Your task to perform on an android device: change text size in settings app Image 0: 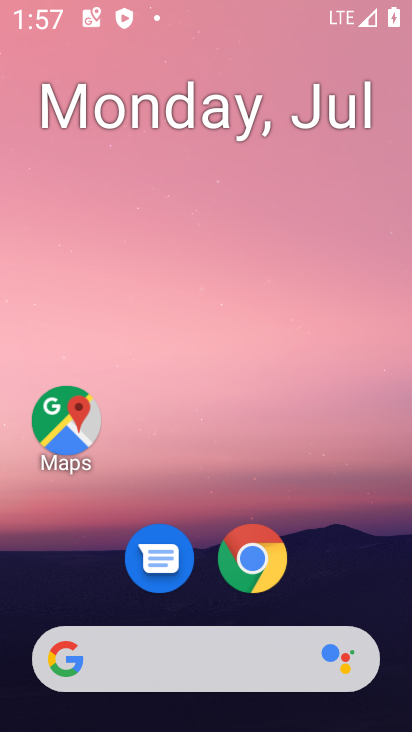
Step 0: press home button
Your task to perform on an android device: change text size in settings app Image 1: 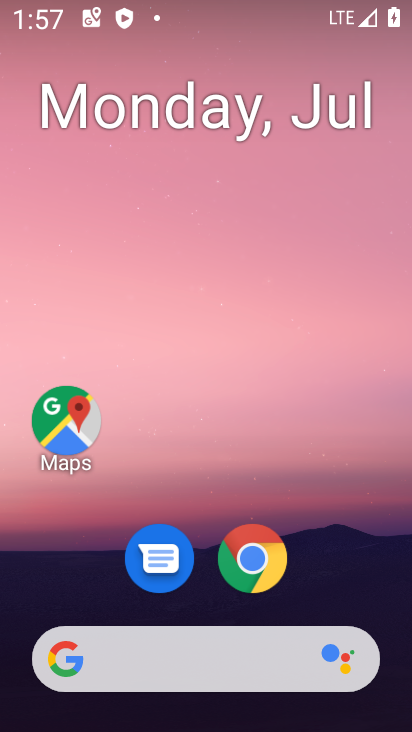
Step 1: drag from (362, 571) to (358, 129)
Your task to perform on an android device: change text size in settings app Image 2: 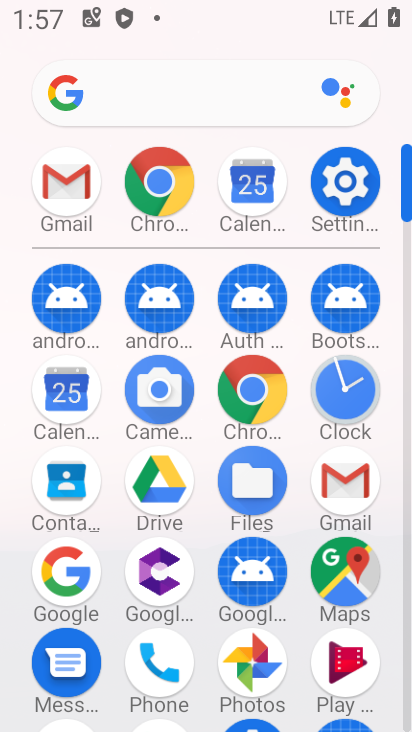
Step 2: click (343, 203)
Your task to perform on an android device: change text size in settings app Image 3: 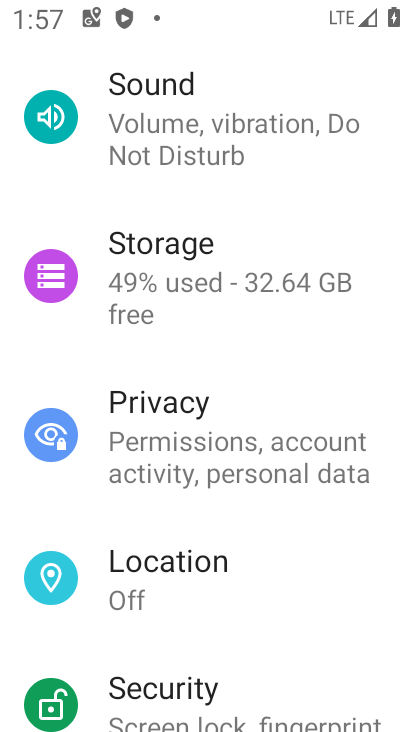
Step 3: drag from (339, 196) to (343, 272)
Your task to perform on an android device: change text size in settings app Image 4: 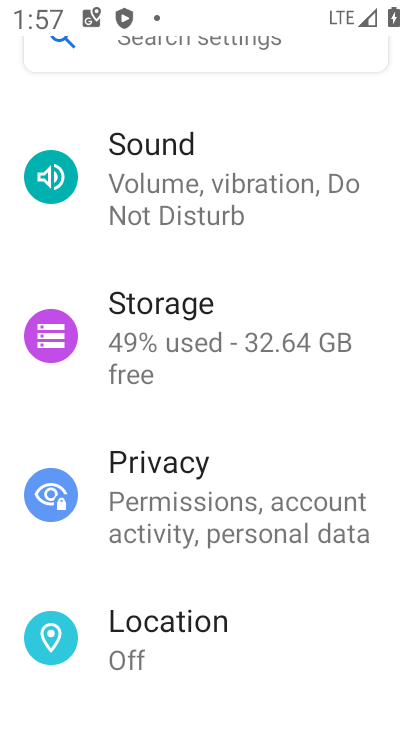
Step 4: drag from (370, 214) to (370, 324)
Your task to perform on an android device: change text size in settings app Image 5: 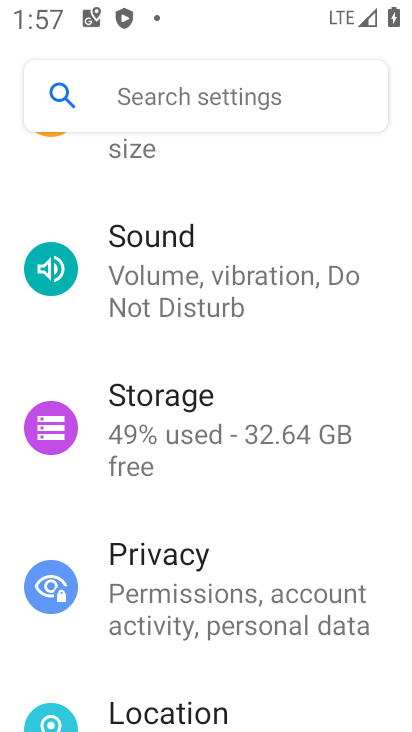
Step 5: drag from (370, 234) to (360, 353)
Your task to perform on an android device: change text size in settings app Image 6: 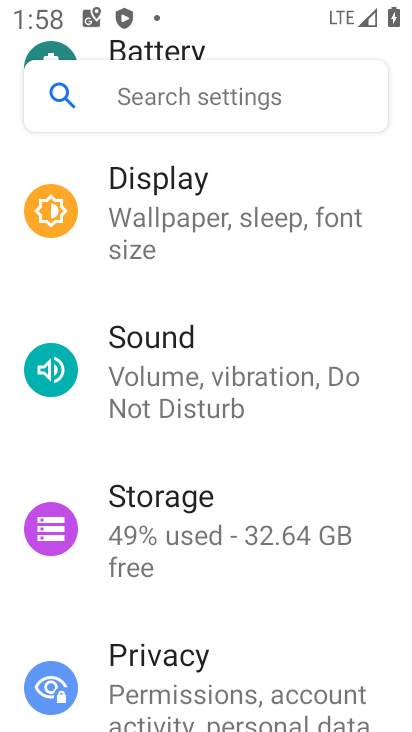
Step 6: drag from (378, 264) to (377, 376)
Your task to perform on an android device: change text size in settings app Image 7: 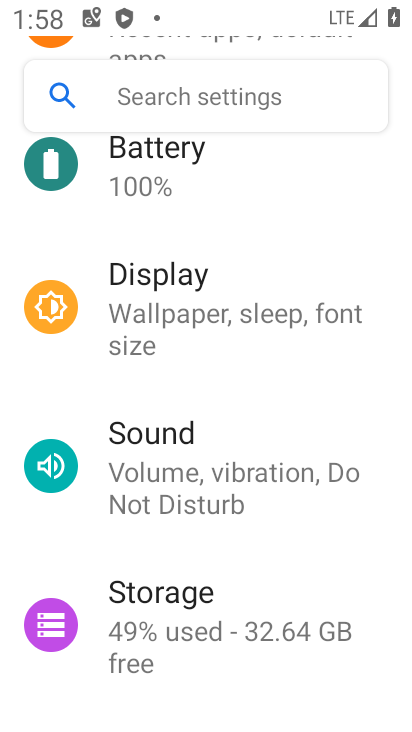
Step 7: drag from (379, 249) to (369, 365)
Your task to perform on an android device: change text size in settings app Image 8: 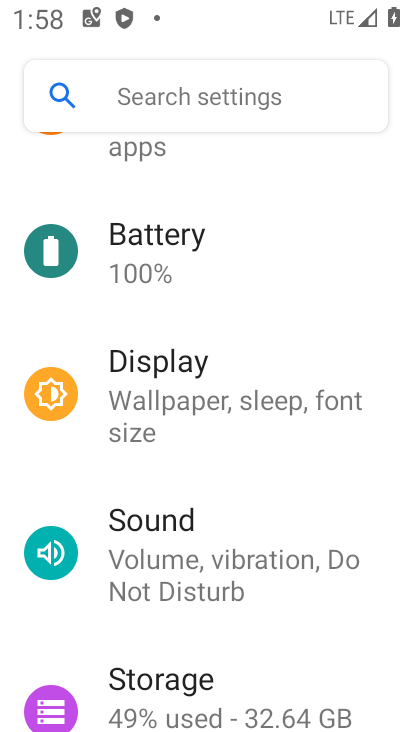
Step 8: drag from (356, 230) to (358, 340)
Your task to perform on an android device: change text size in settings app Image 9: 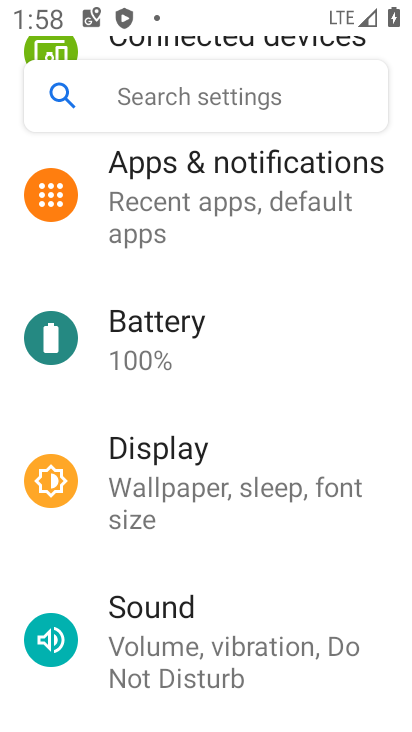
Step 9: drag from (358, 271) to (354, 384)
Your task to perform on an android device: change text size in settings app Image 10: 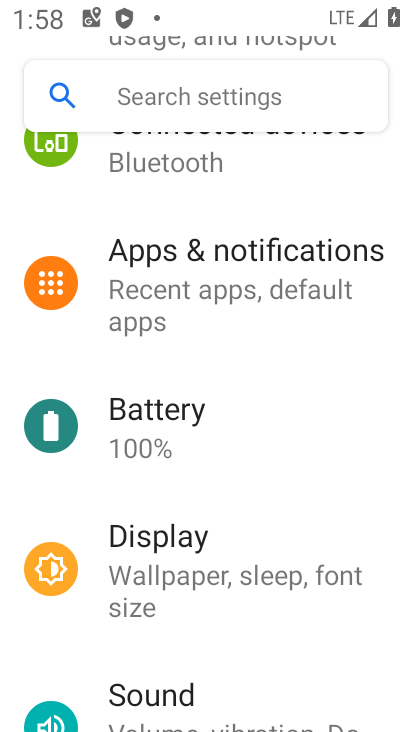
Step 10: click (317, 546)
Your task to perform on an android device: change text size in settings app Image 11: 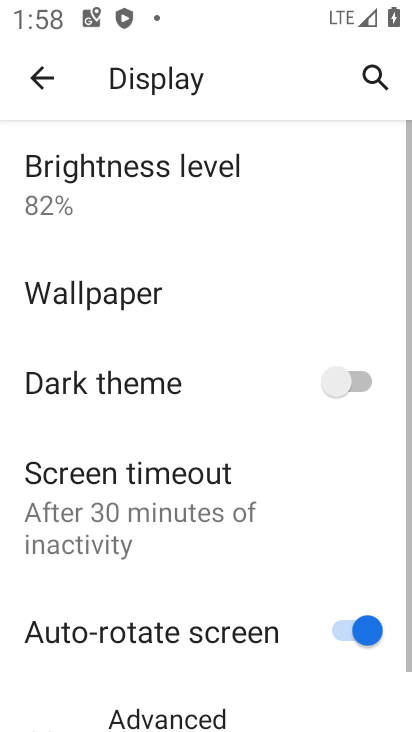
Step 11: drag from (295, 554) to (291, 403)
Your task to perform on an android device: change text size in settings app Image 12: 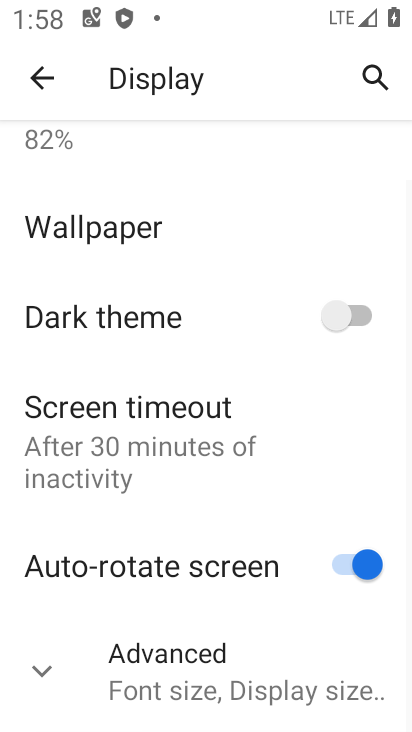
Step 12: click (272, 641)
Your task to perform on an android device: change text size in settings app Image 13: 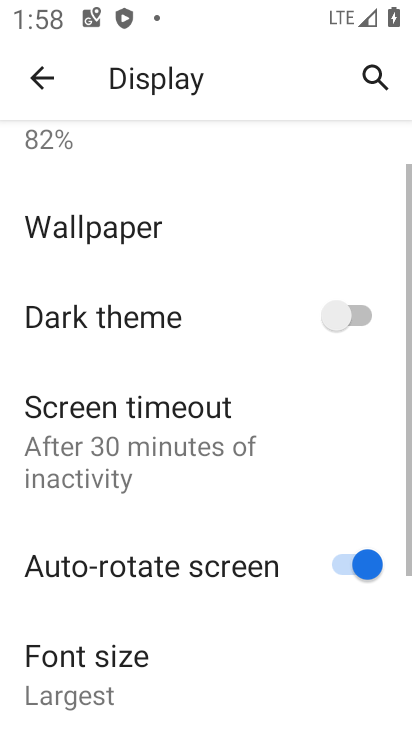
Step 13: drag from (280, 616) to (285, 481)
Your task to perform on an android device: change text size in settings app Image 14: 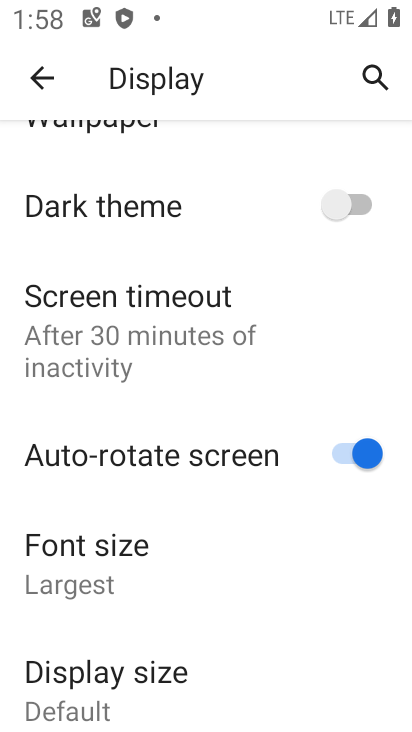
Step 14: drag from (246, 621) to (247, 440)
Your task to perform on an android device: change text size in settings app Image 15: 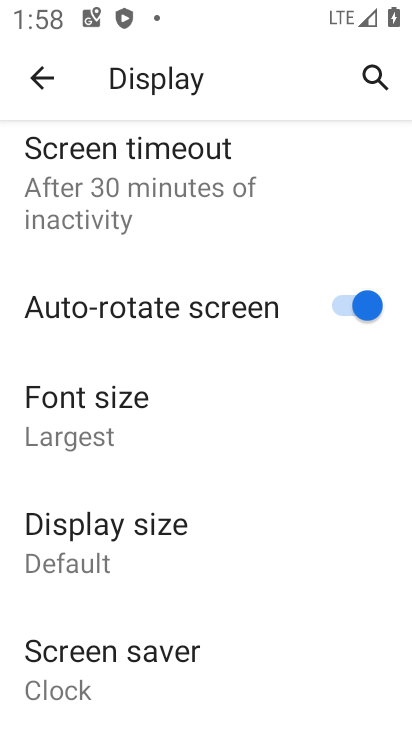
Step 15: click (235, 422)
Your task to perform on an android device: change text size in settings app Image 16: 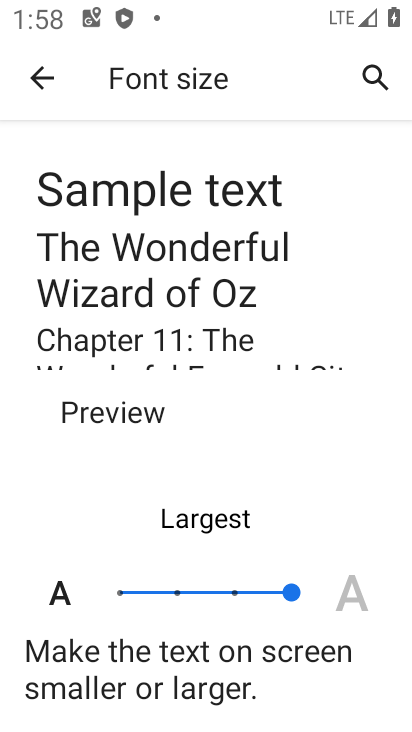
Step 16: click (240, 588)
Your task to perform on an android device: change text size in settings app Image 17: 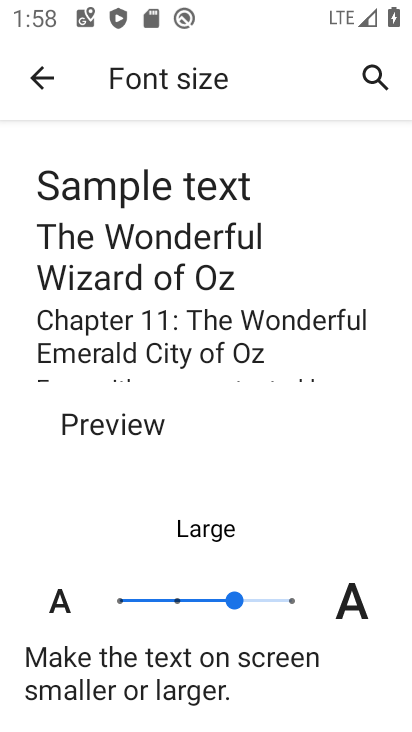
Step 17: task complete